Your task to perform on an android device: toggle pop-ups in chrome Image 0: 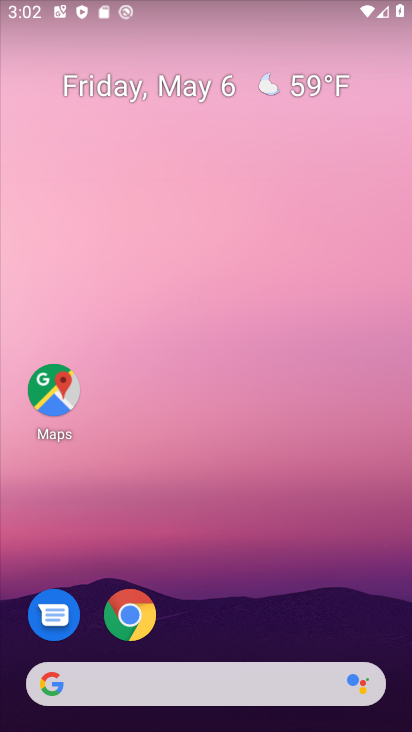
Step 0: drag from (249, 630) to (266, 265)
Your task to perform on an android device: toggle pop-ups in chrome Image 1: 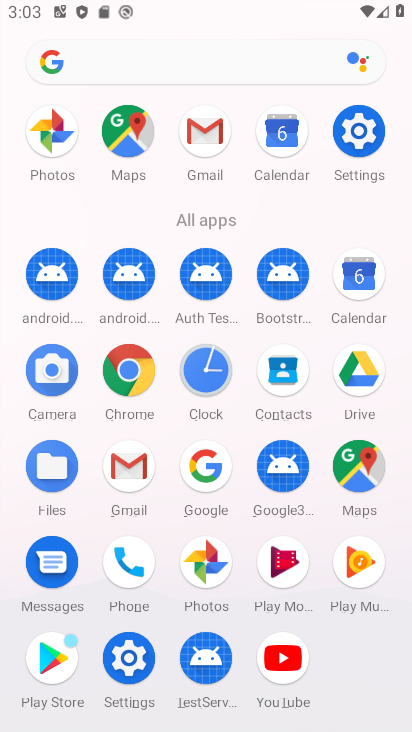
Step 1: click (128, 361)
Your task to perform on an android device: toggle pop-ups in chrome Image 2: 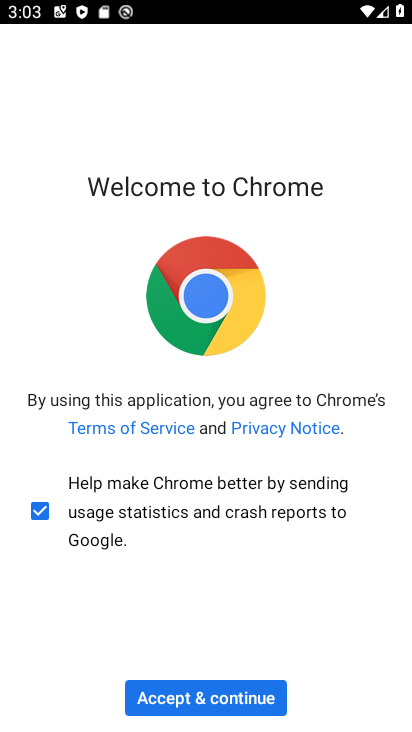
Step 2: click (212, 688)
Your task to perform on an android device: toggle pop-ups in chrome Image 3: 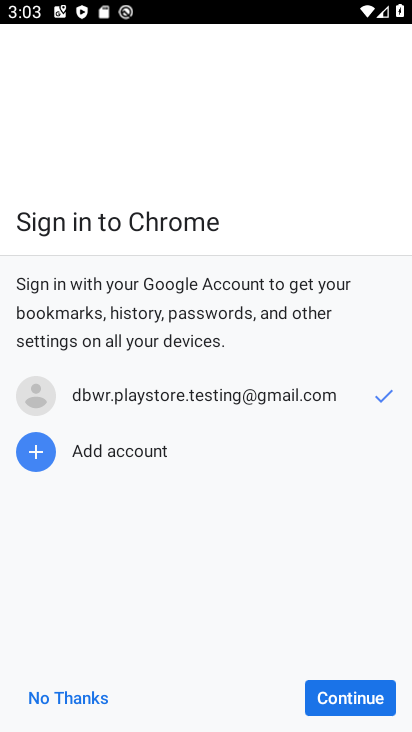
Step 3: click (354, 696)
Your task to perform on an android device: toggle pop-ups in chrome Image 4: 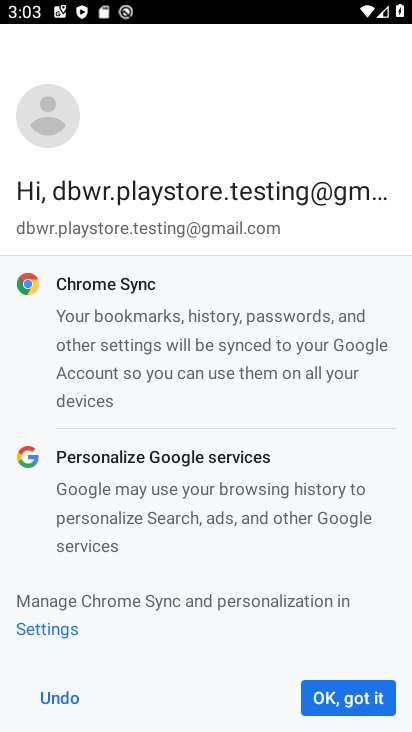
Step 4: click (367, 694)
Your task to perform on an android device: toggle pop-ups in chrome Image 5: 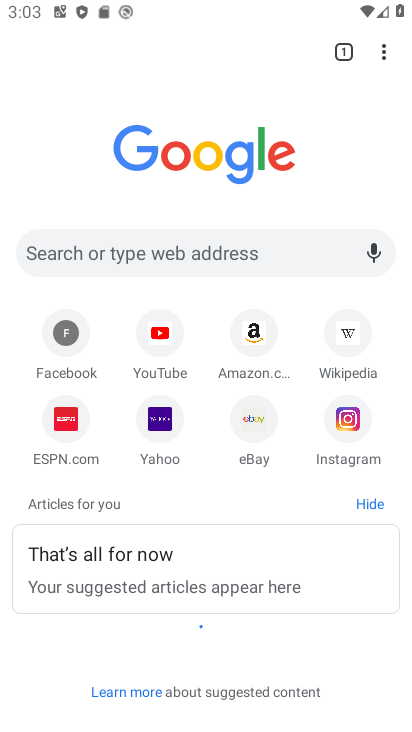
Step 5: click (375, 51)
Your task to perform on an android device: toggle pop-ups in chrome Image 6: 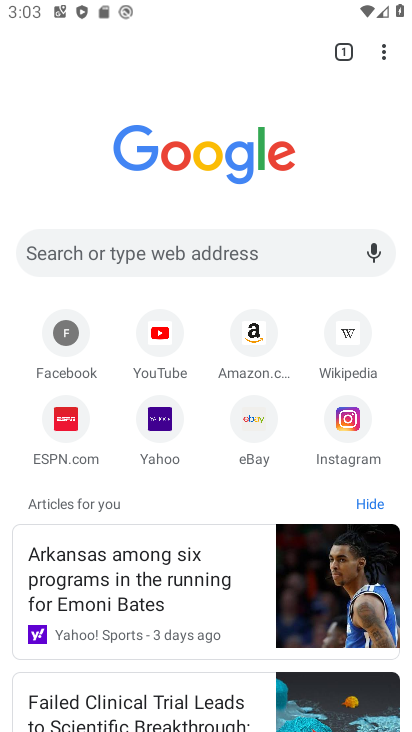
Step 6: click (361, 51)
Your task to perform on an android device: toggle pop-ups in chrome Image 7: 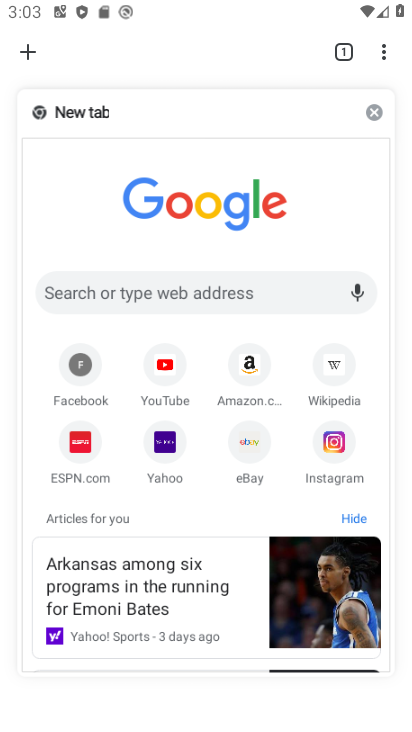
Step 7: click (375, 50)
Your task to perform on an android device: toggle pop-ups in chrome Image 8: 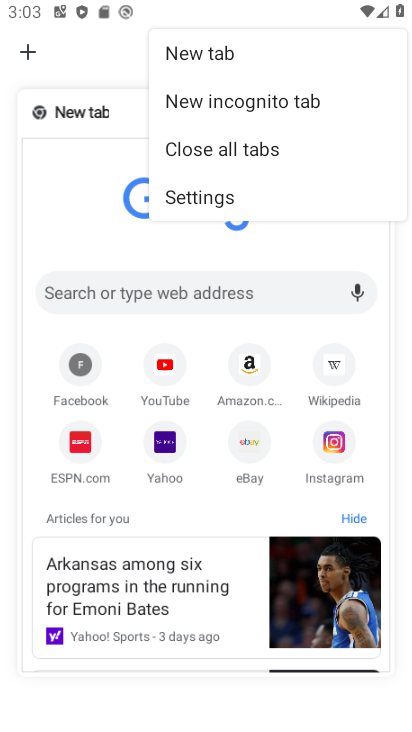
Step 8: click (206, 198)
Your task to perform on an android device: toggle pop-ups in chrome Image 9: 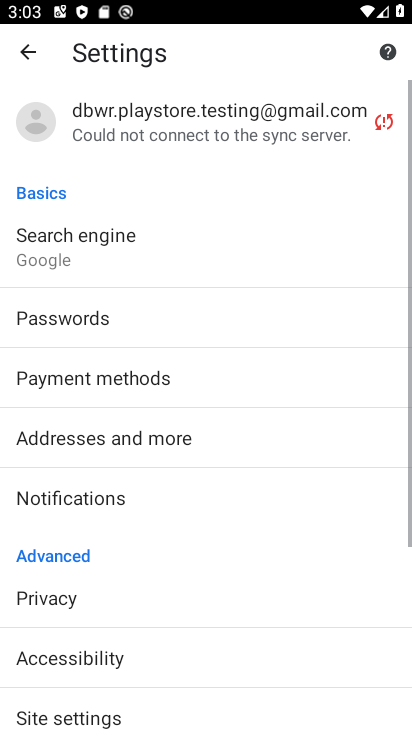
Step 9: drag from (94, 637) to (212, 305)
Your task to perform on an android device: toggle pop-ups in chrome Image 10: 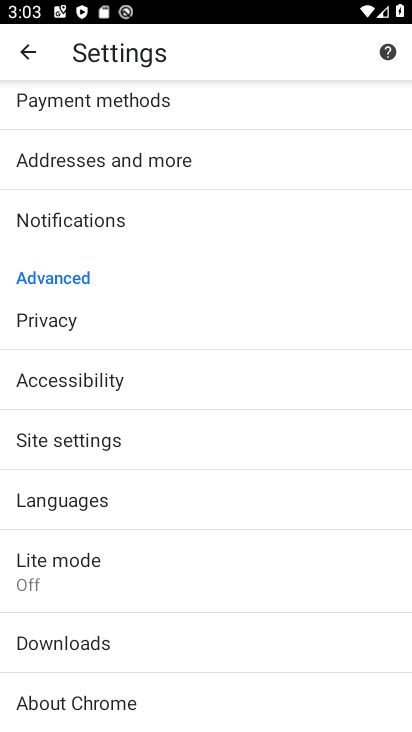
Step 10: click (108, 442)
Your task to perform on an android device: toggle pop-ups in chrome Image 11: 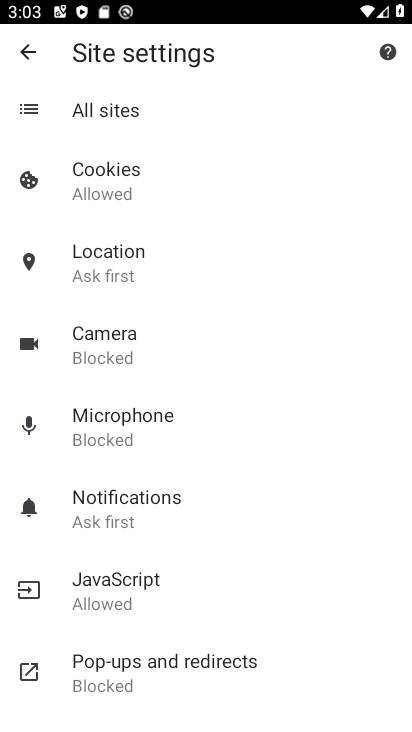
Step 11: click (143, 673)
Your task to perform on an android device: toggle pop-ups in chrome Image 12: 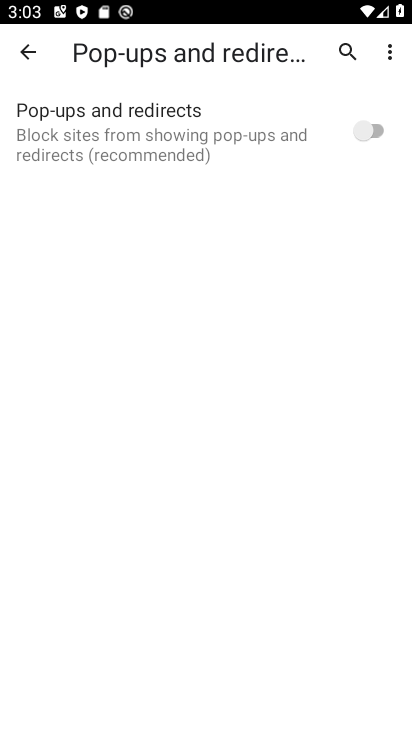
Step 12: click (365, 142)
Your task to perform on an android device: toggle pop-ups in chrome Image 13: 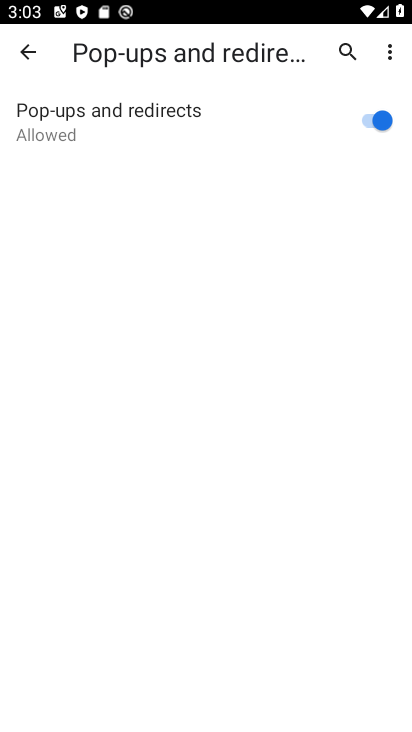
Step 13: task complete